Your task to perform on an android device: Set the phone to "Do not disturb". Image 0: 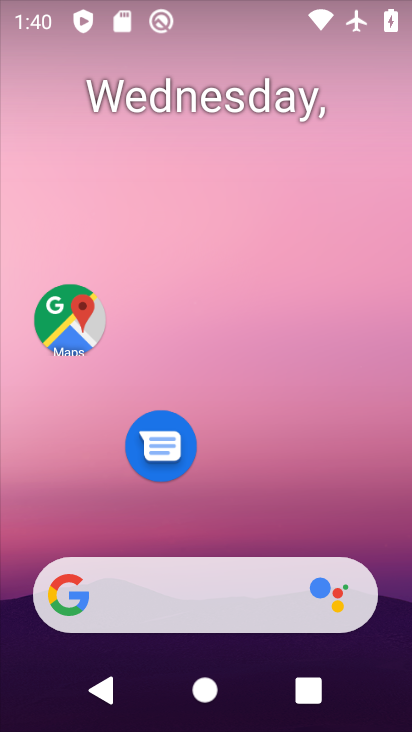
Step 0: drag from (329, 507) to (249, 120)
Your task to perform on an android device: Set the phone to "Do not disturb". Image 1: 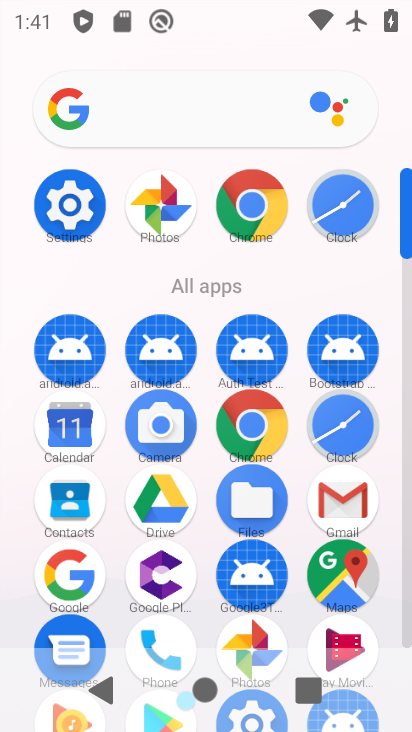
Step 1: click (91, 195)
Your task to perform on an android device: Set the phone to "Do not disturb". Image 2: 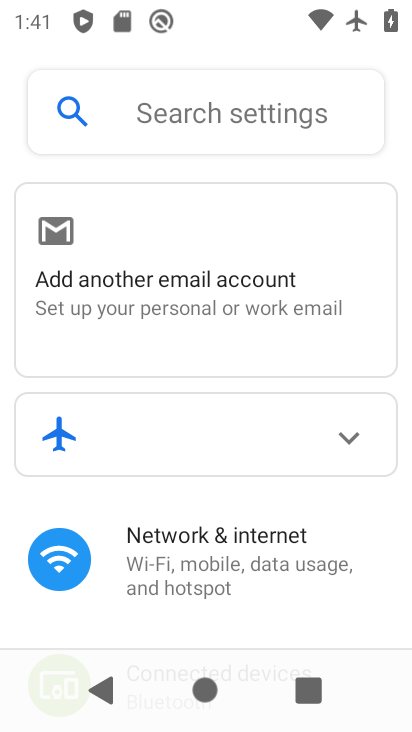
Step 2: drag from (57, 552) to (73, 251)
Your task to perform on an android device: Set the phone to "Do not disturb". Image 3: 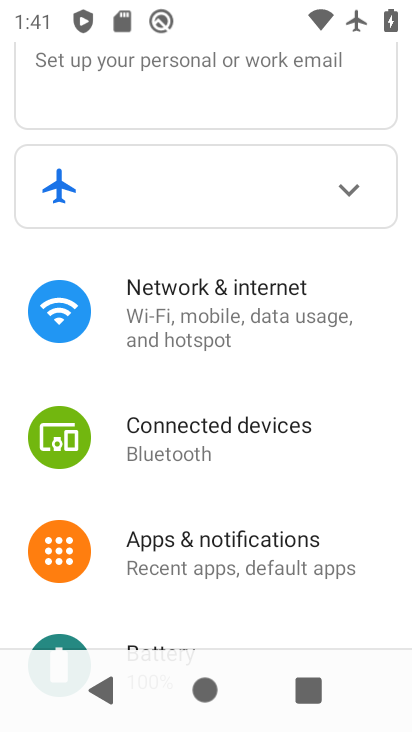
Step 3: drag from (122, 524) to (74, 264)
Your task to perform on an android device: Set the phone to "Do not disturb". Image 4: 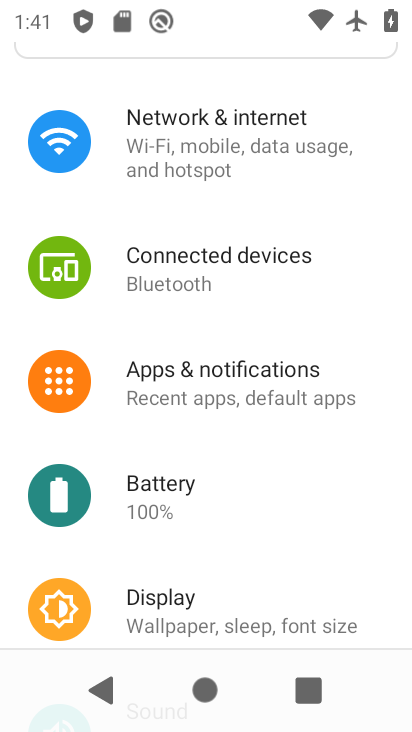
Step 4: click (152, 598)
Your task to perform on an android device: Set the phone to "Do not disturb". Image 5: 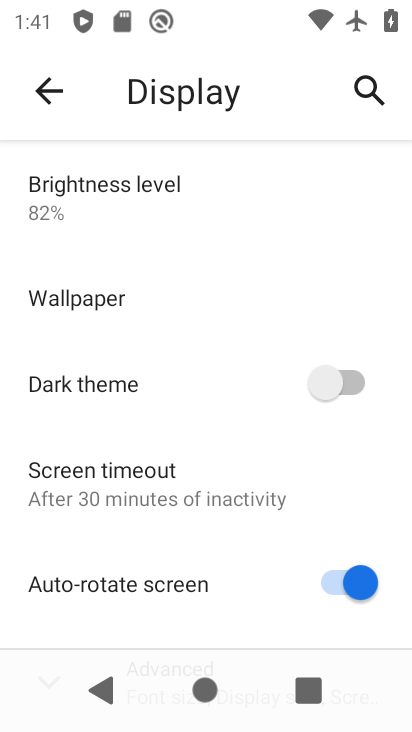
Step 5: drag from (193, 433) to (163, 241)
Your task to perform on an android device: Set the phone to "Do not disturb". Image 6: 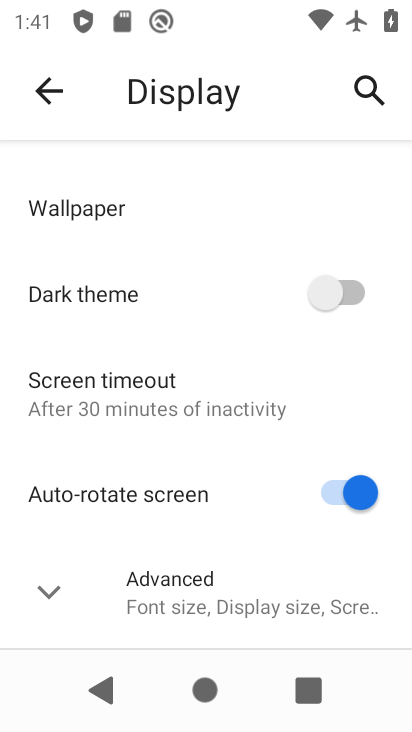
Step 6: drag from (193, 566) to (161, 316)
Your task to perform on an android device: Set the phone to "Do not disturb". Image 7: 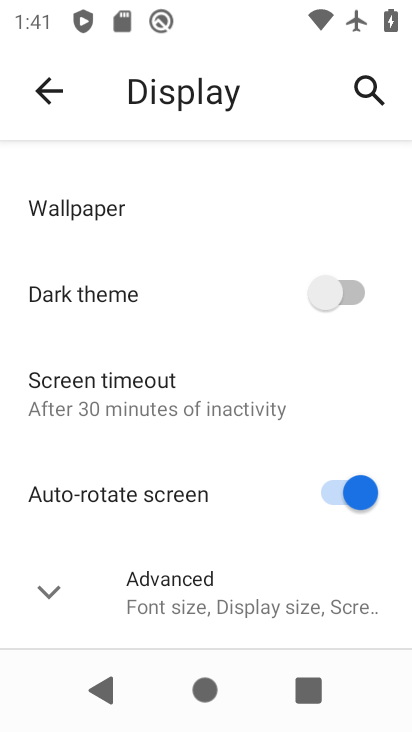
Step 7: click (164, 553)
Your task to perform on an android device: Set the phone to "Do not disturb". Image 8: 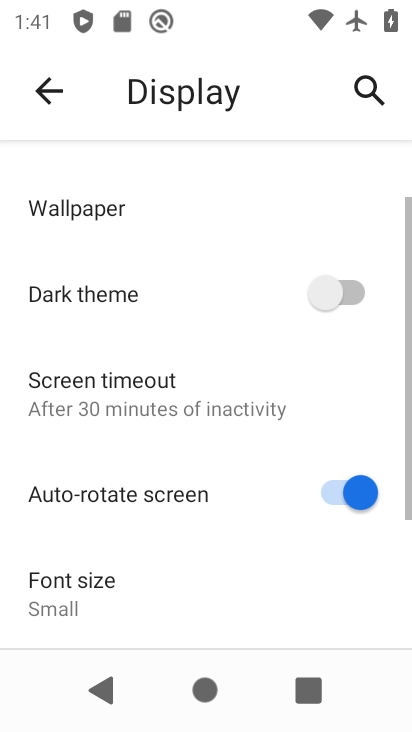
Step 8: drag from (164, 553) to (120, 310)
Your task to perform on an android device: Set the phone to "Do not disturb". Image 9: 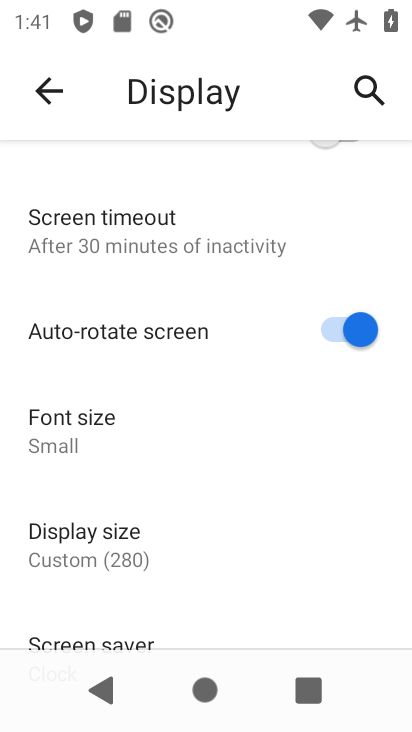
Step 9: drag from (134, 616) to (194, 330)
Your task to perform on an android device: Set the phone to "Do not disturb". Image 10: 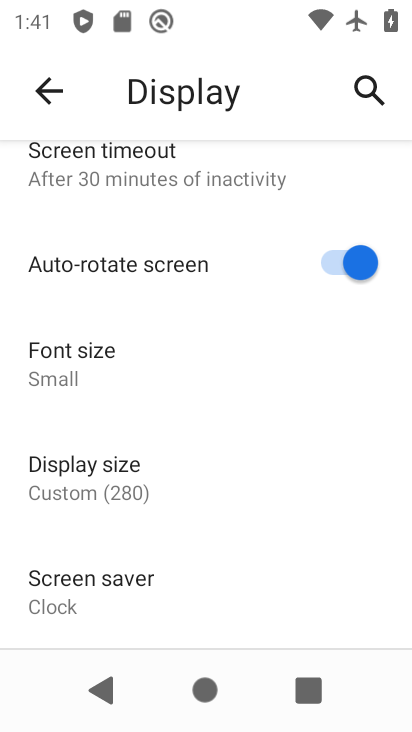
Step 10: drag from (194, 330) to (269, 697)
Your task to perform on an android device: Set the phone to "Do not disturb". Image 11: 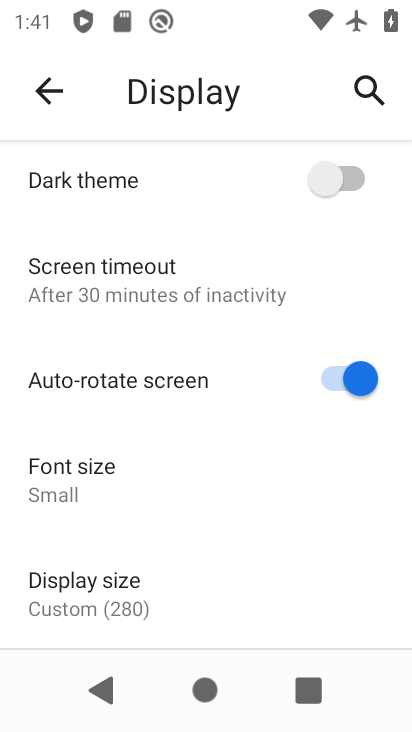
Step 11: drag from (150, 233) to (153, 513)
Your task to perform on an android device: Set the phone to "Do not disturb". Image 12: 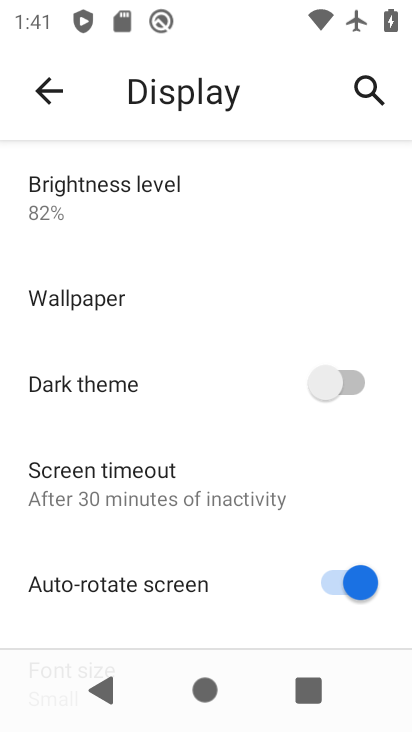
Step 12: drag from (88, 202) to (73, 514)
Your task to perform on an android device: Set the phone to "Do not disturb". Image 13: 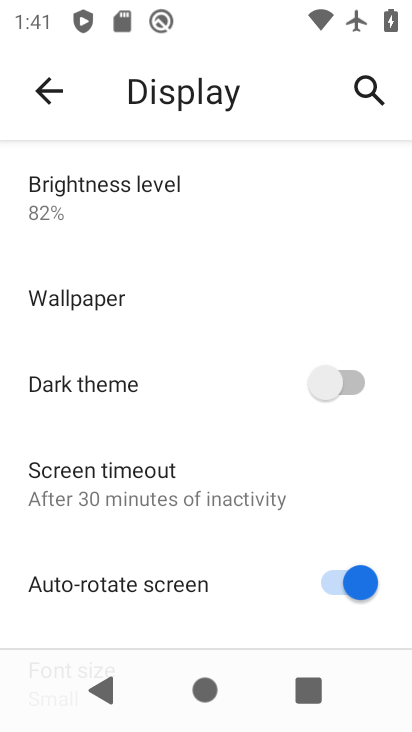
Step 13: drag from (142, 197) to (141, 317)
Your task to perform on an android device: Set the phone to "Do not disturb". Image 14: 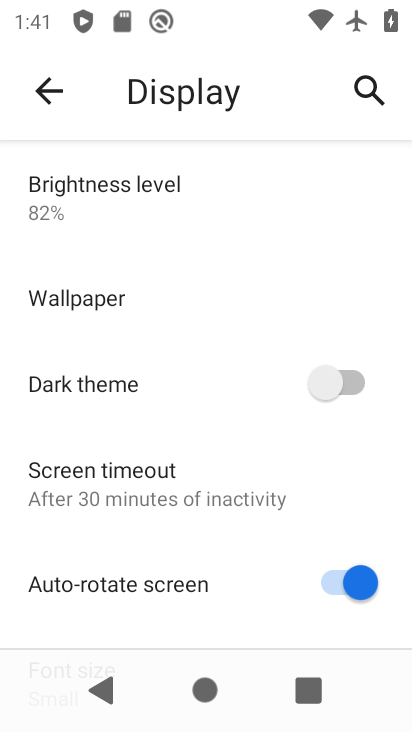
Step 14: click (44, 87)
Your task to perform on an android device: Set the phone to "Do not disturb". Image 15: 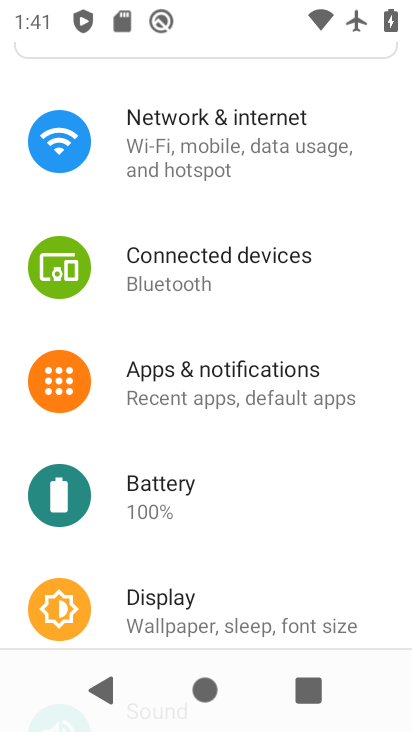
Step 15: drag from (209, 566) to (190, 281)
Your task to perform on an android device: Set the phone to "Do not disturb". Image 16: 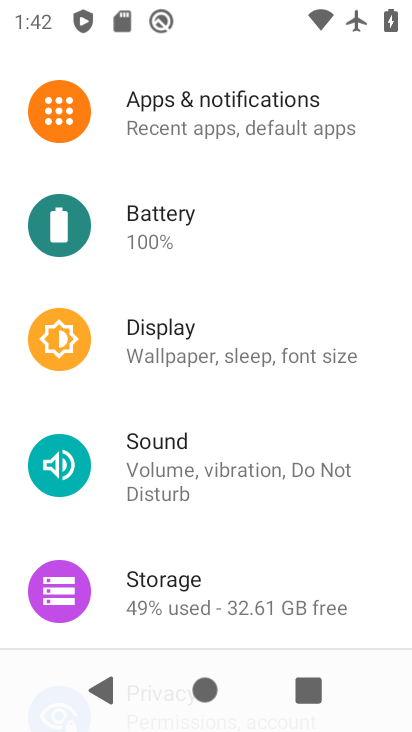
Step 16: drag from (248, 209) to (245, 436)
Your task to perform on an android device: Set the phone to "Do not disturb". Image 17: 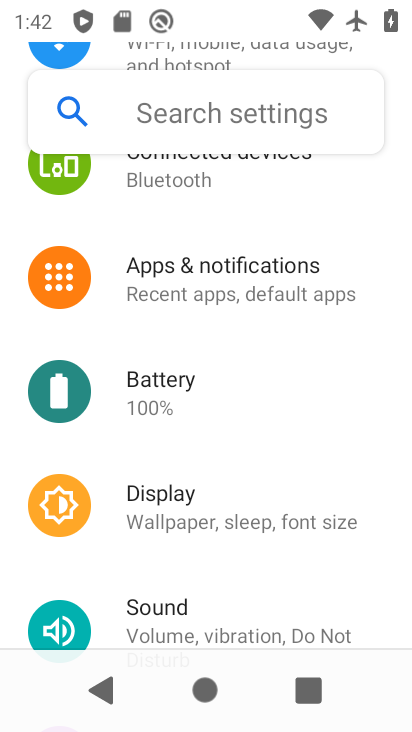
Step 17: drag from (234, 481) to (235, 403)
Your task to perform on an android device: Set the phone to "Do not disturb". Image 18: 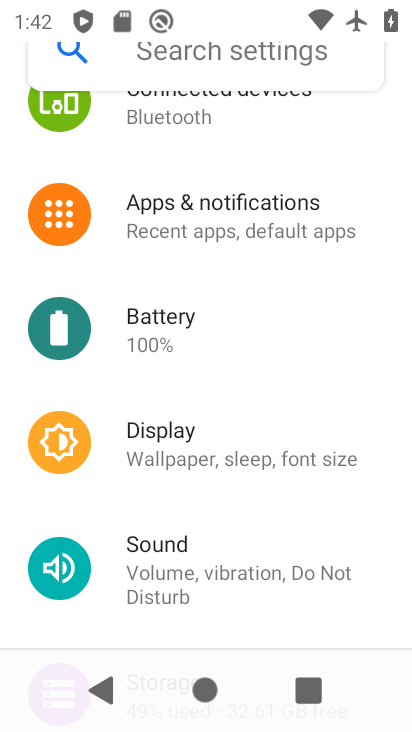
Step 18: click (210, 537)
Your task to perform on an android device: Set the phone to "Do not disturb". Image 19: 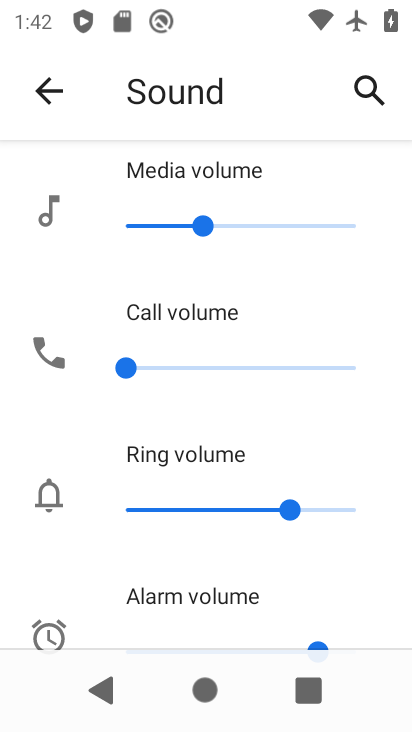
Step 19: drag from (233, 568) to (269, 158)
Your task to perform on an android device: Set the phone to "Do not disturb". Image 20: 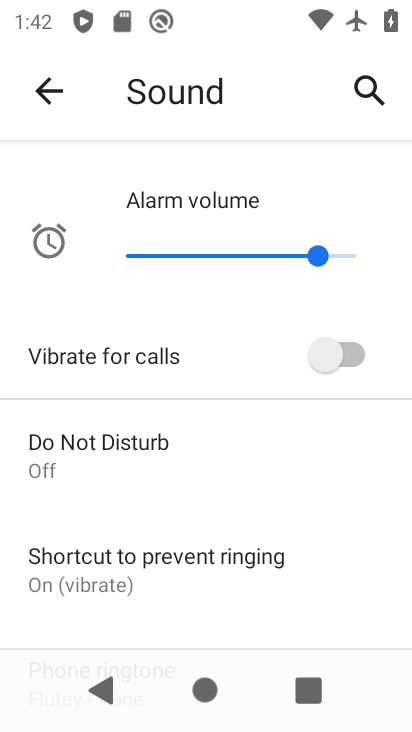
Step 20: click (185, 393)
Your task to perform on an android device: Set the phone to "Do not disturb". Image 21: 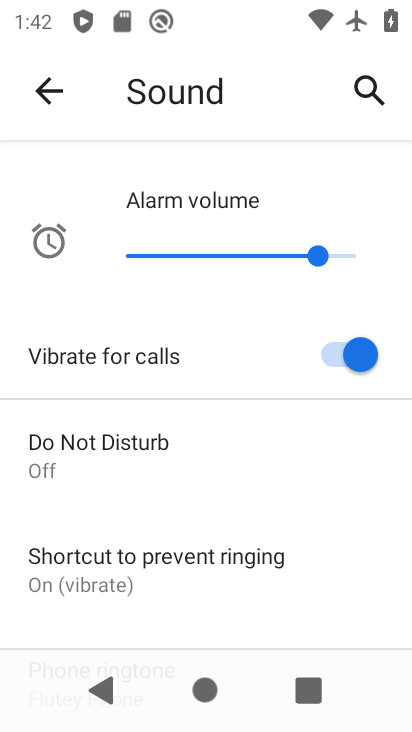
Step 21: click (185, 449)
Your task to perform on an android device: Set the phone to "Do not disturb". Image 22: 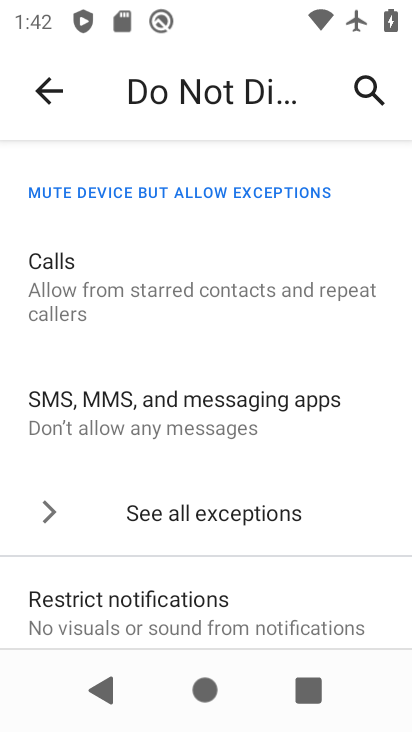
Step 22: drag from (223, 567) to (219, 305)
Your task to perform on an android device: Set the phone to "Do not disturb". Image 23: 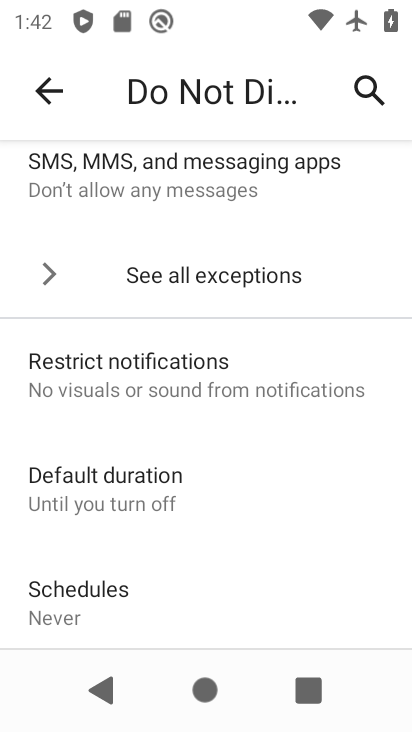
Step 23: drag from (193, 495) to (188, 156)
Your task to perform on an android device: Set the phone to "Do not disturb". Image 24: 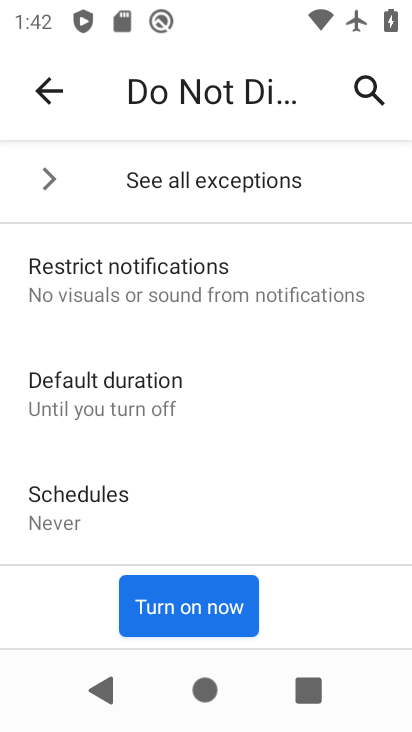
Step 24: click (140, 590)
Your task to perform on an android device: Set the phone to "Do not disturb". Image 25: 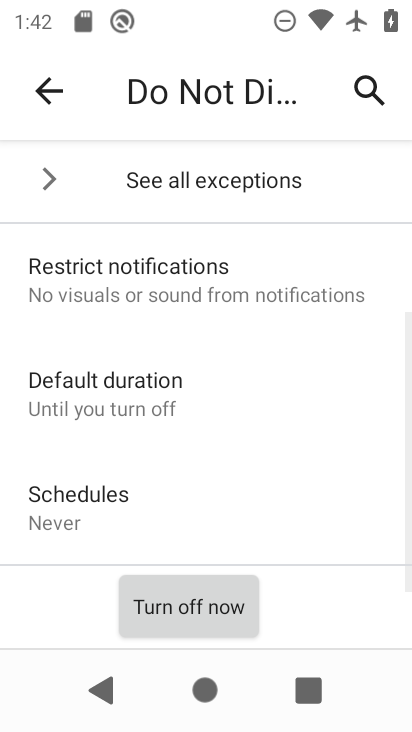
Step 25: task complete